Your task to perform on an android device: turn off wifi Image 0: 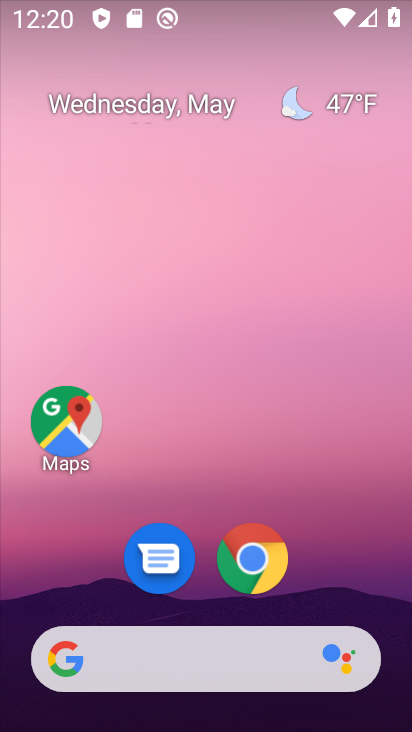
Step 0: drag from (219, 726) to (229, 168)
Your task to perform on an android device: turn off wifi Image 1: 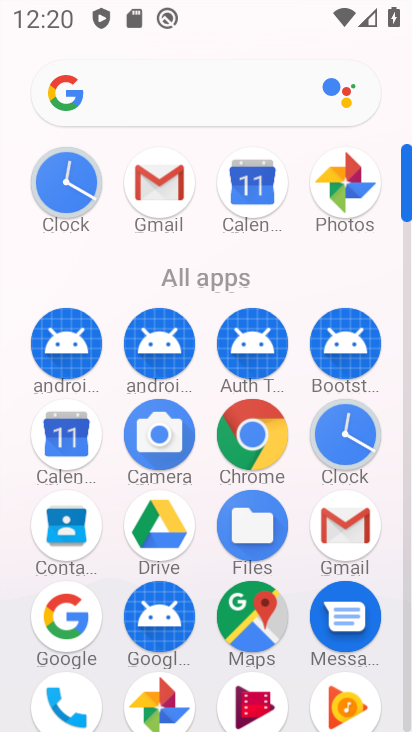
Step 1: drag from (22, 584) to (34, 180)
Your task to perform on an android device: turn off wifi Image 2: 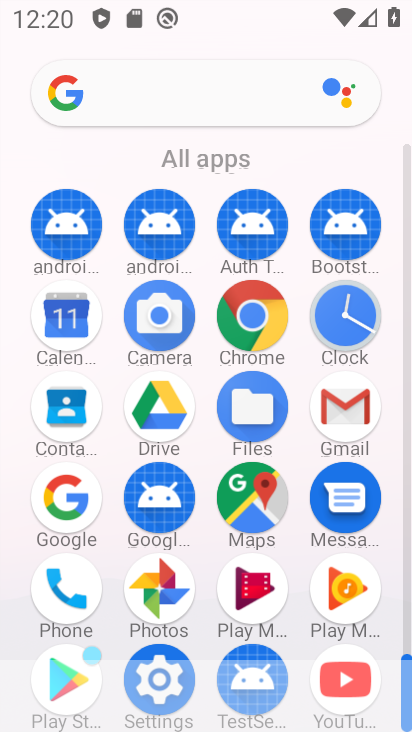
Step 2: click (170, 654)
Your task to perform on an android device: turn off wifi Image 3: 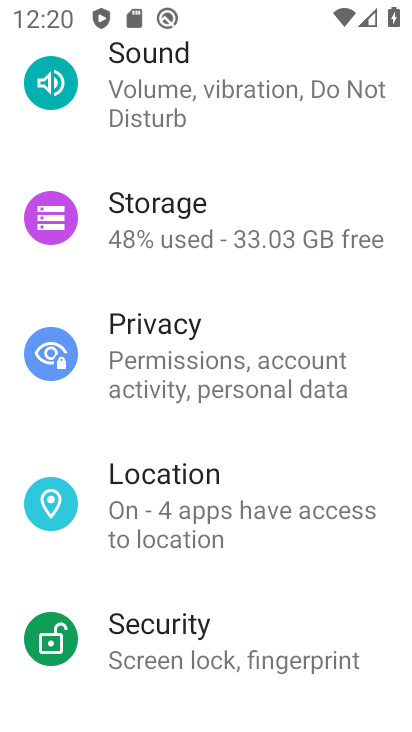
Step 3: drag from (55, 163) to (61, 498)
Your task to perform on an android device: turn off wifi Image 4: 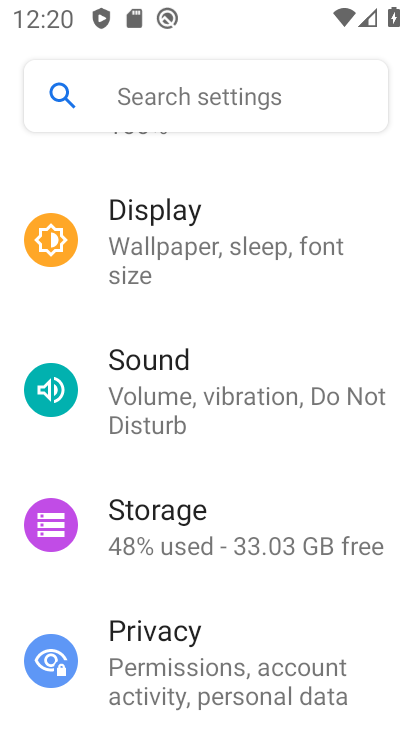
Step 4: drag from (190, 197) to (215, 587)
Your task to perform on an android device: turn off wifi Image 5: 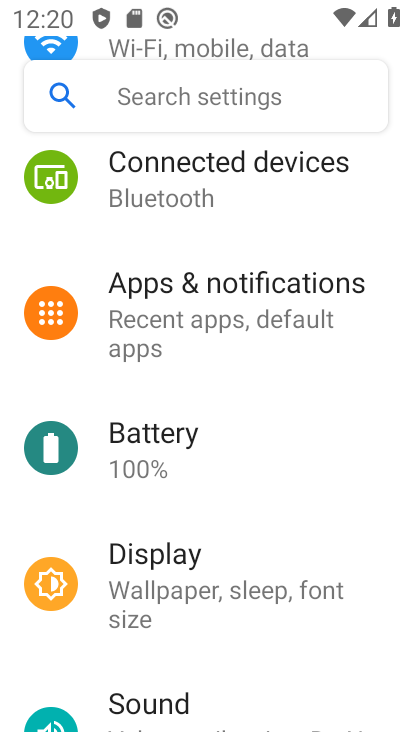
Step 5: drag from (256, 313) to (268, 527)
Your task to perform on an android device: turn off wifi Image 6: 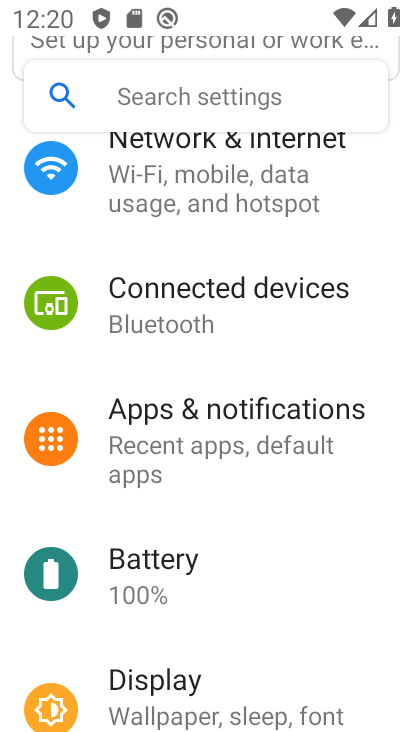
Step 6: drag from (261, 145) to (280, 530)
Your task to perform on an android device: turn off wifi Image 7: 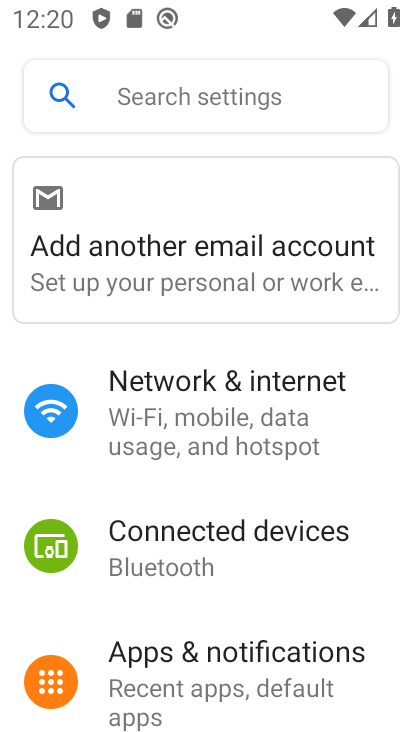
Step 7: click (201, 393)
Your task to perform on an android device: turn off wifi Image 8: 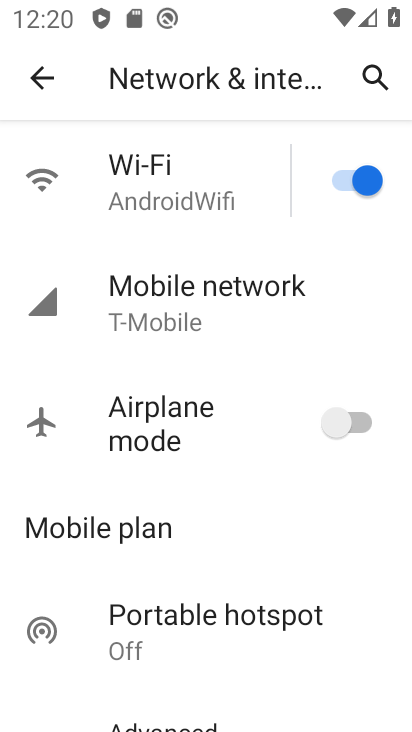
Step 8: click (346, 184)
Your task to perform on an android device: turn off wifi Image 9: 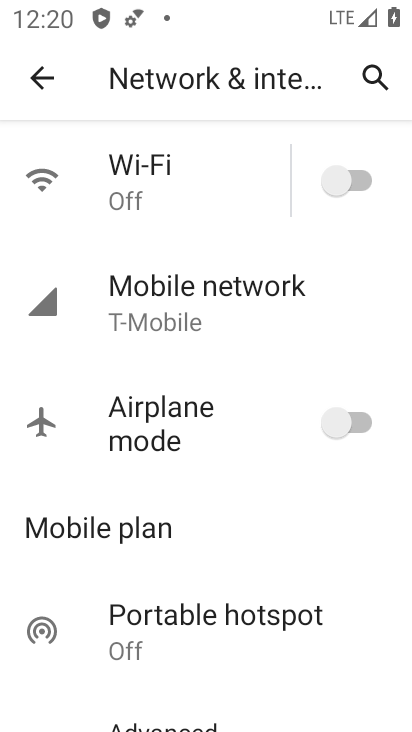
Step 9: task complete